Your task to perform on an android device: change the clock display to show seconds Image 0: 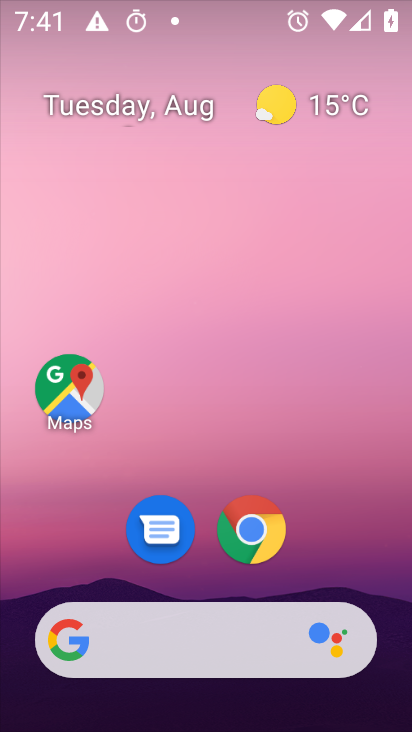
Step 0: press home button
Your task to perform on an android device: change the clock display to show seconds Image 1: 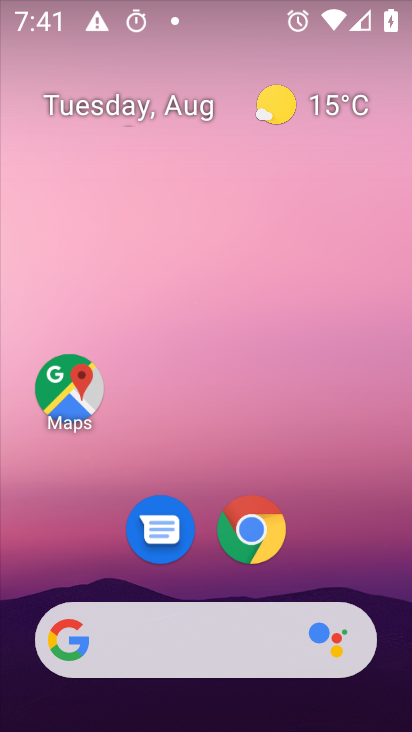
Step 1: drag from (201, 578) to (187, 10)
Your task to perform on an android device: change the clock display to show seconds Image 2: 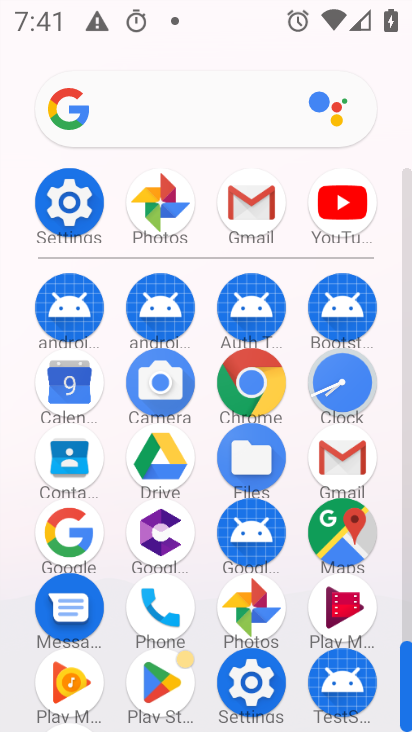
Step 2: click (352, 392)
Your task to perform on an android device: change the clock display to show seconds Image 3: 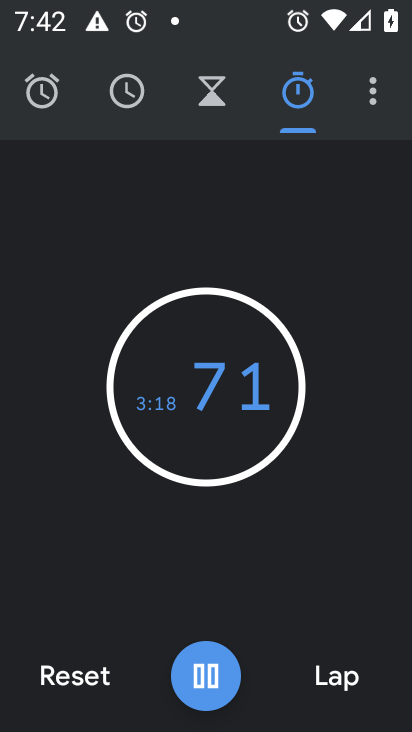
Step 3: click (372, 96)
Your task to perform on an android device: change the clock display to show seconds Image 4: 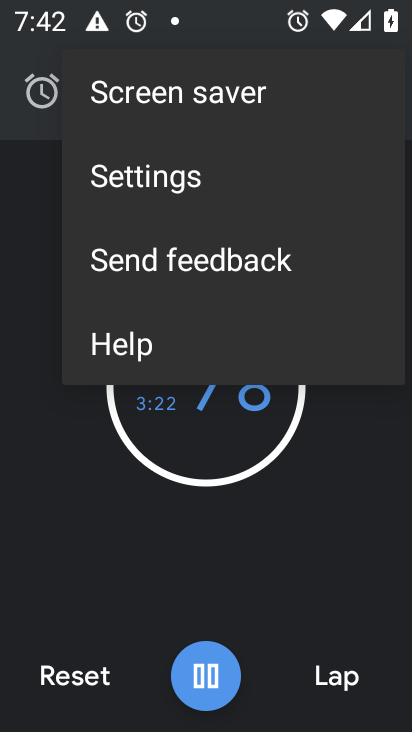
Step 4: click (148, 184)
Your task to perform on an android device: change the clock display to show seconds Image 5: 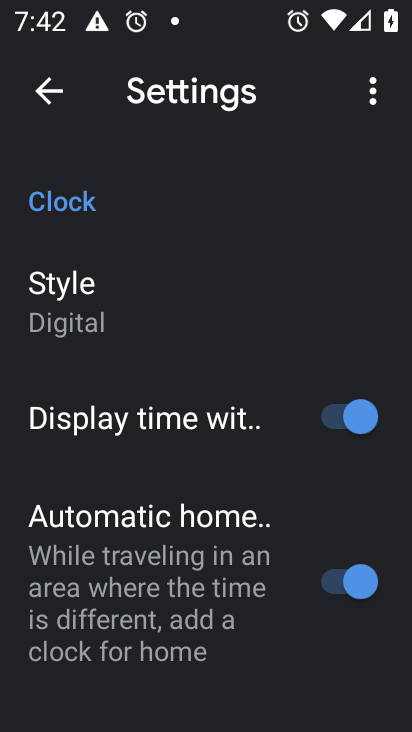
Step 5: task complete